Your task to perform on an android device: check google app version Image 0: 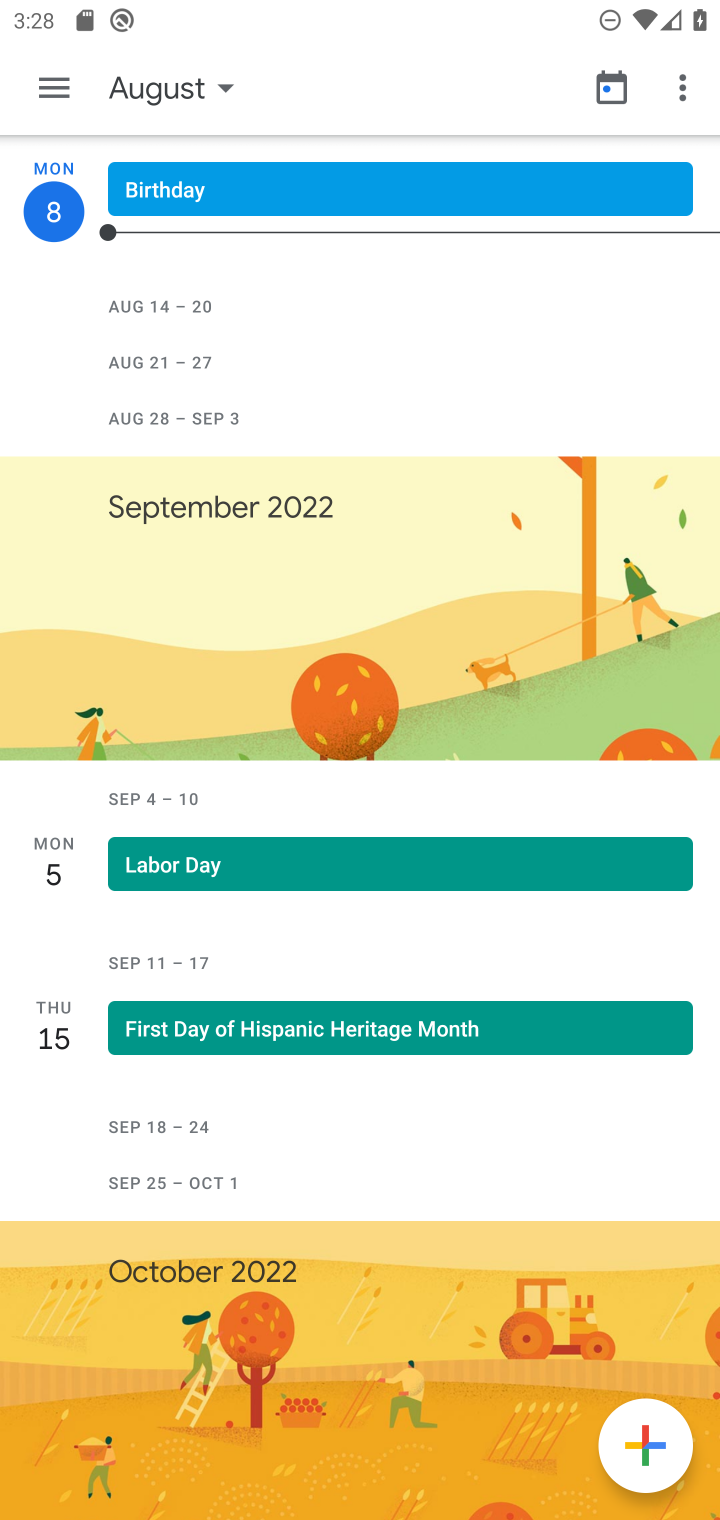
Step 0: press home button
Your task to perform on an android device: check google app version Image 1: 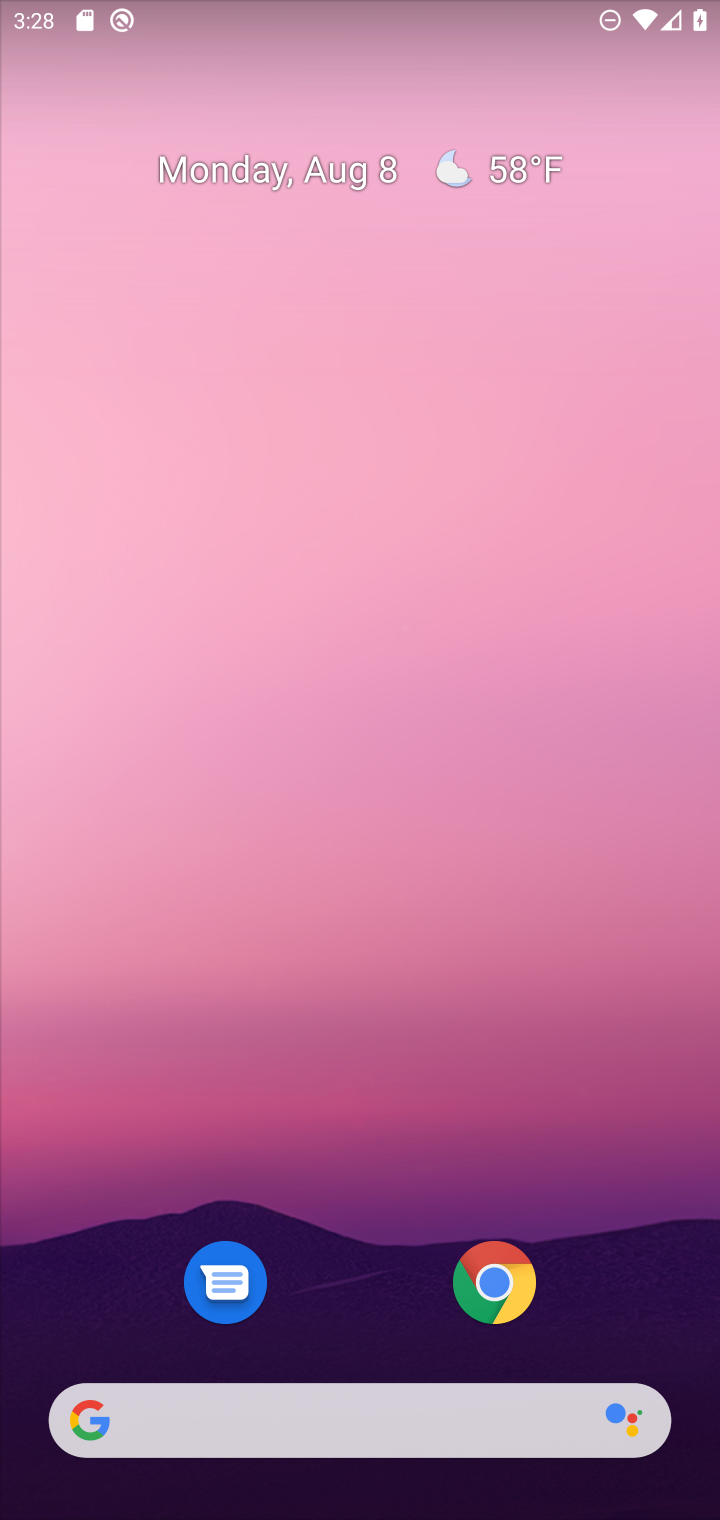
Step 1: drag from (402, 1155) to (590, 207)
Your task to perform on an android device: check google app version Image 2: 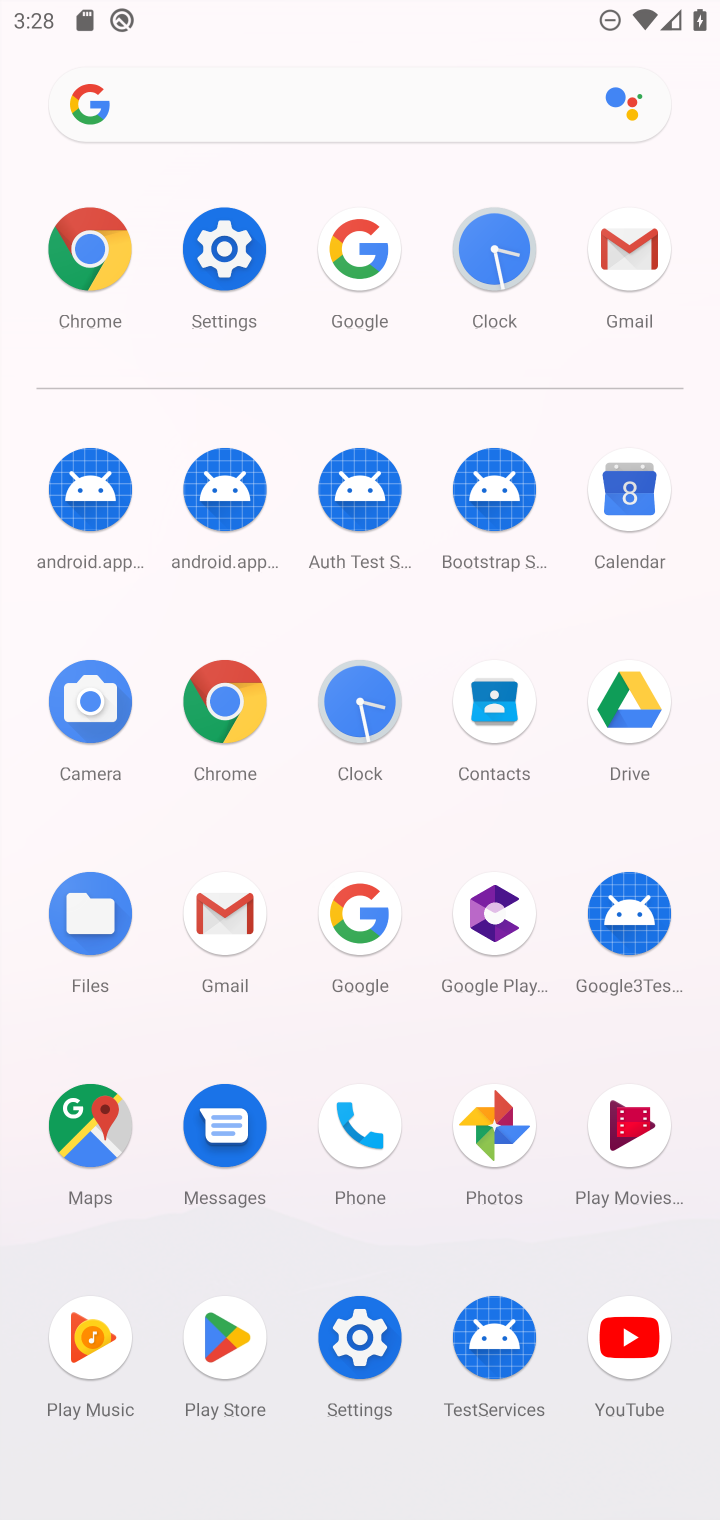
Step 2: click (362, 915)
Your task to perform on an android device: check google app version Image 3: 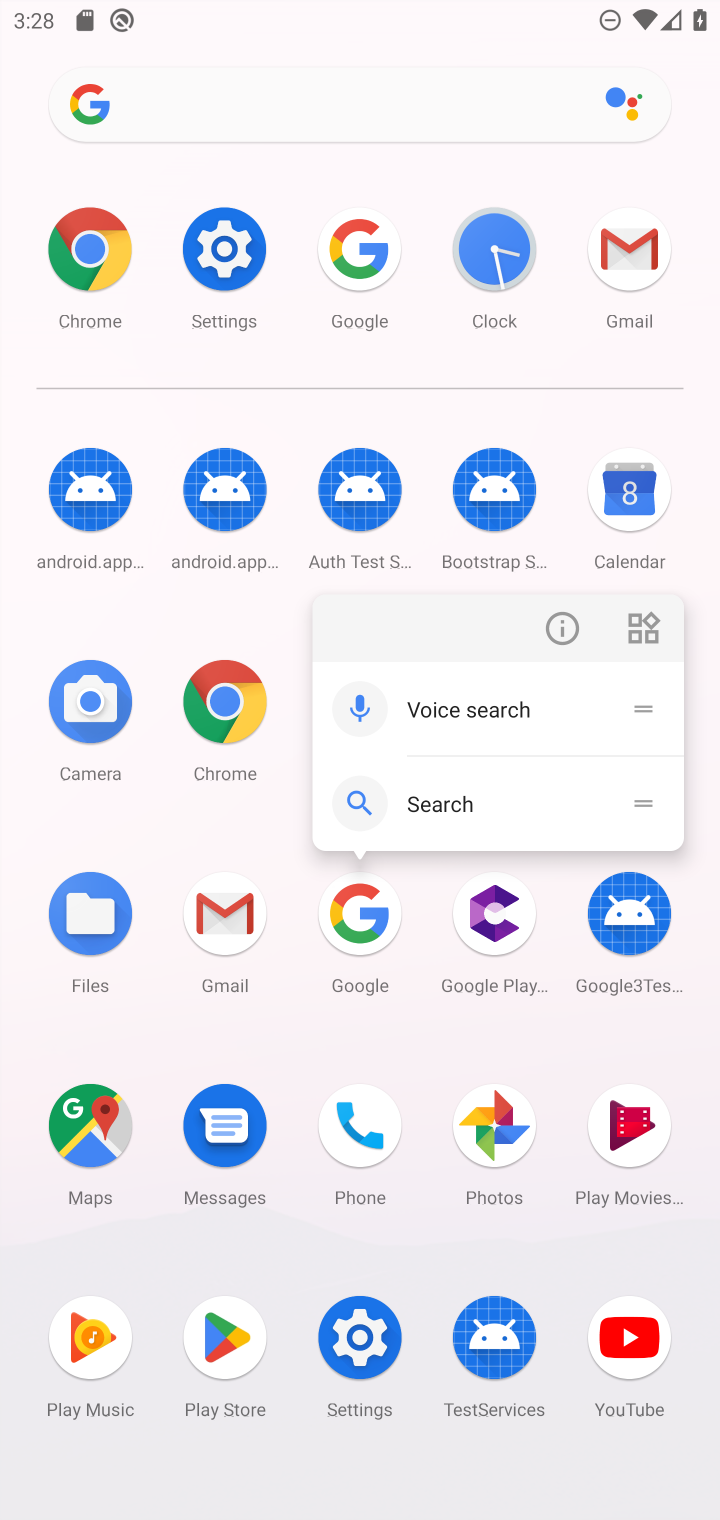
Step 3: click (566, 621)
Your task to perform on an android device: check google app version Image 4: 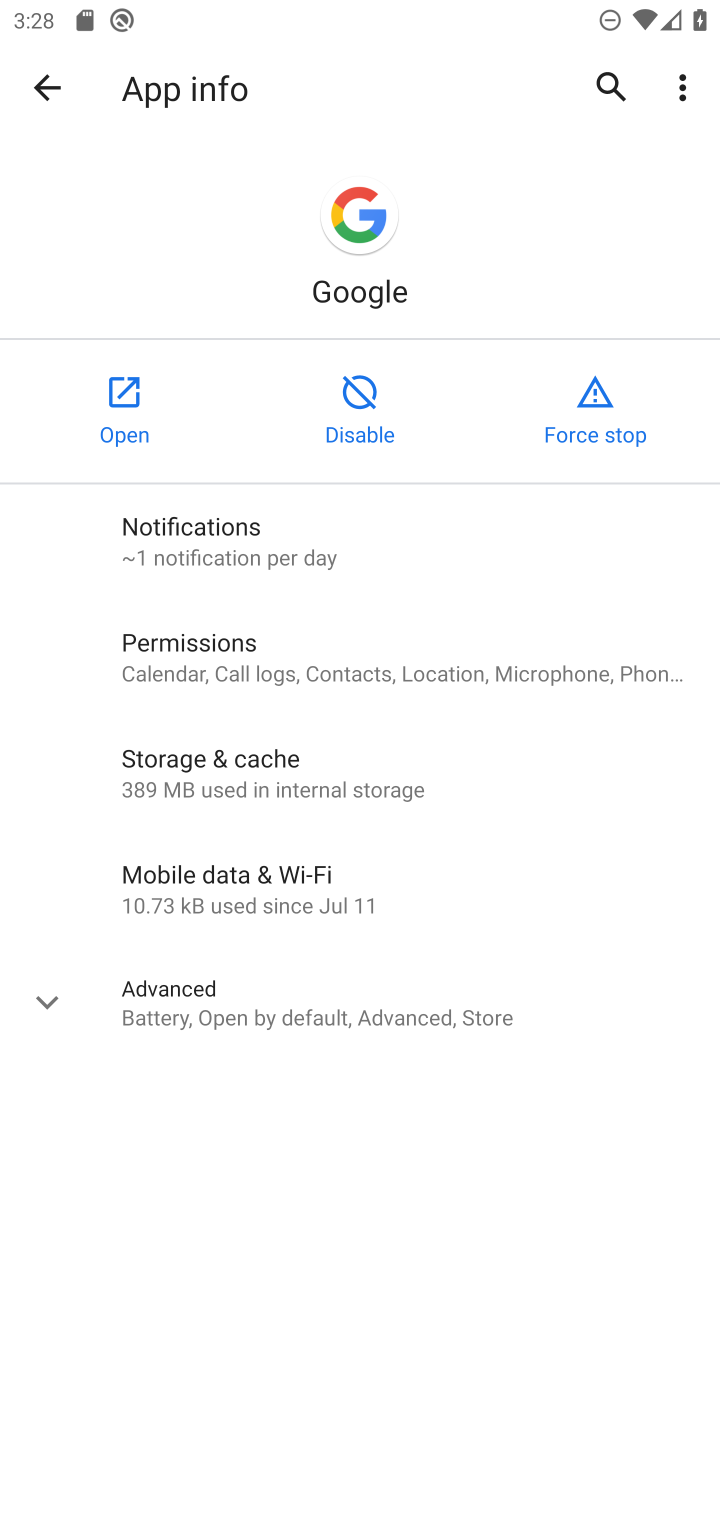
Step 4: click (282, 1007)
Your task to perform on an android device: check google app version Image 5: 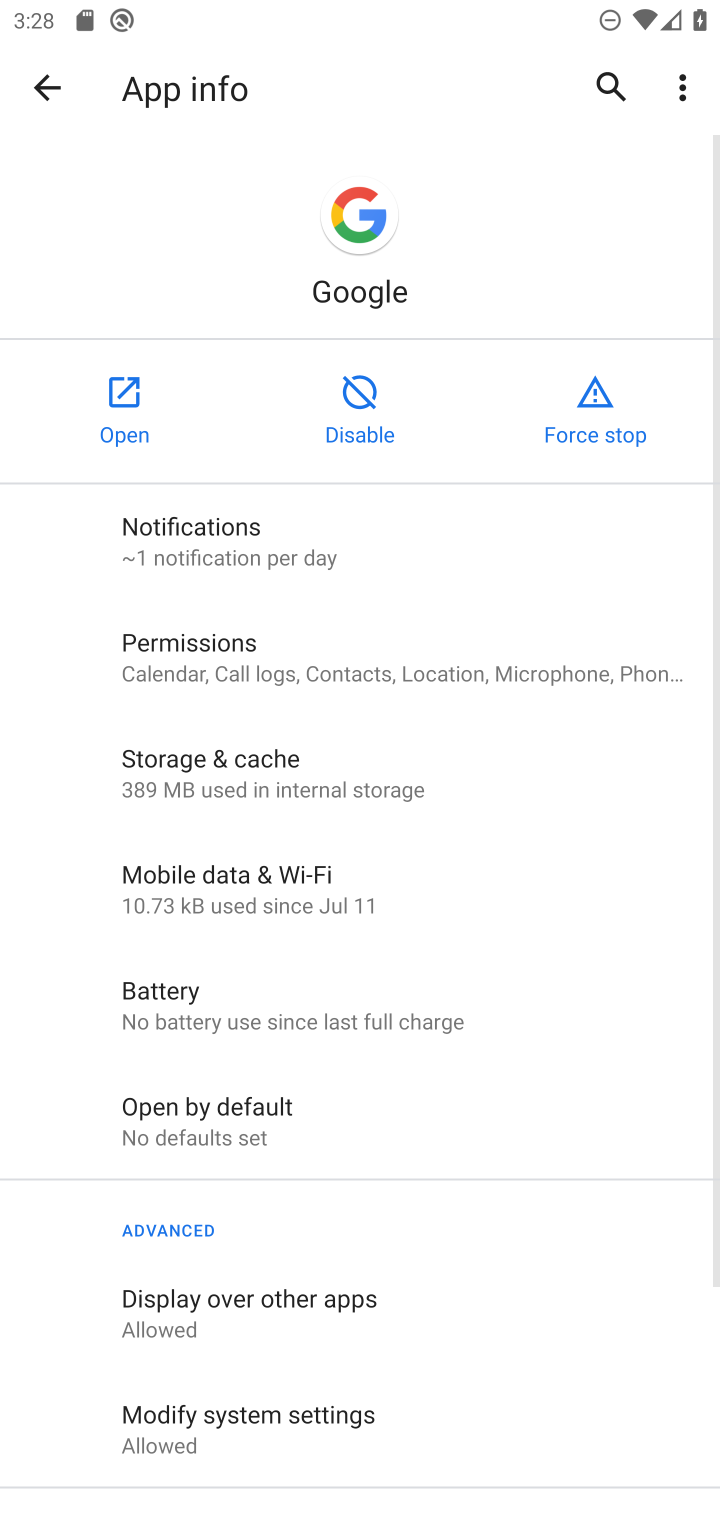
Step 5: task complete